Your task to perform on an android device: install app "Reddit" Image 0: 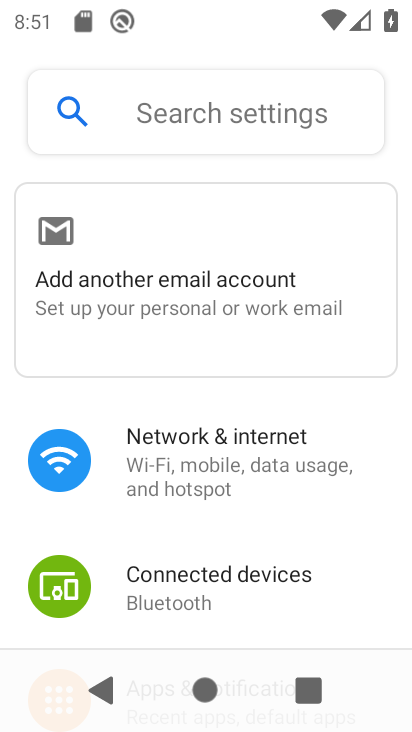
Step 0: press home button
Your task to perform on an android device: install app "Reddit" Image 1: 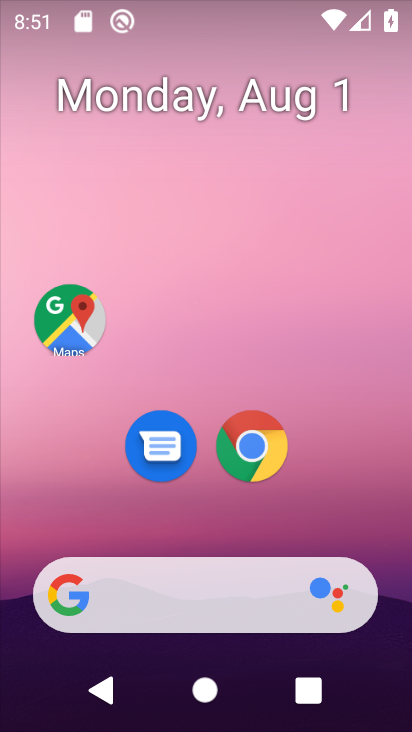
Step 1: drag from (202, 530) to (203, 92)
Your task to perform on an android device: install app "Reddit" Image 2: 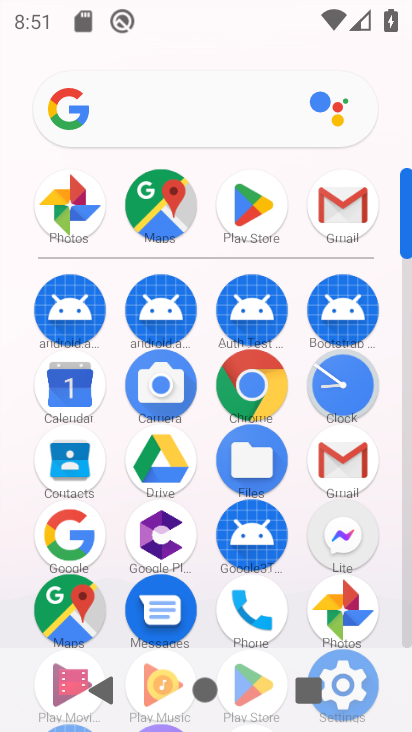
Step 2: click (247, 214)
Your task to perform on an android device: install app "Reddit" Image 3: 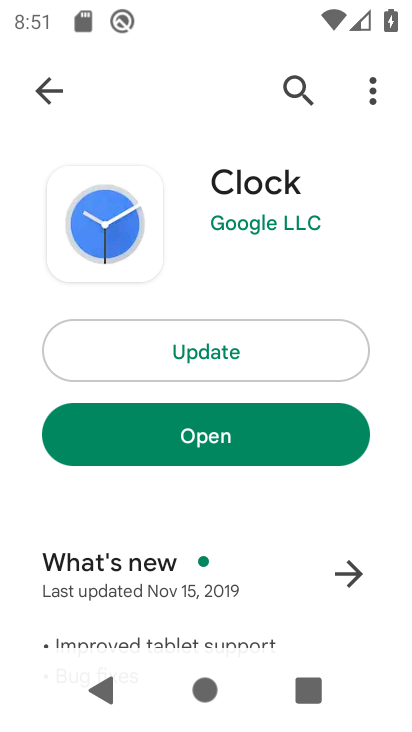
Step 3: click (294, 98)
Your task to perform on an android device: install app "Reddit" Image 4: 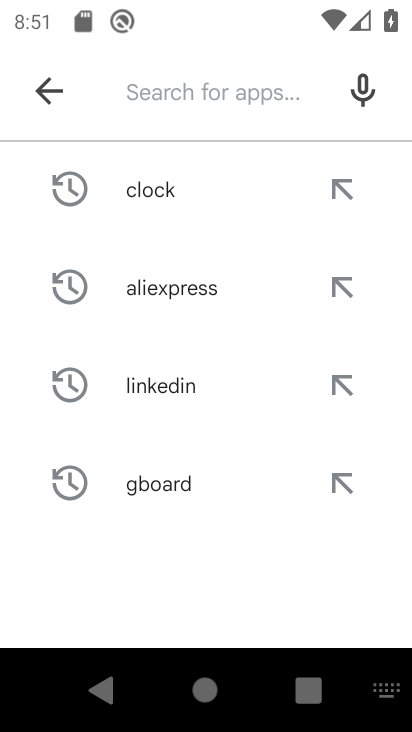
Step 4: click (257, 90)
Your task to perform on an android device: install app "Reddit" Image 5: 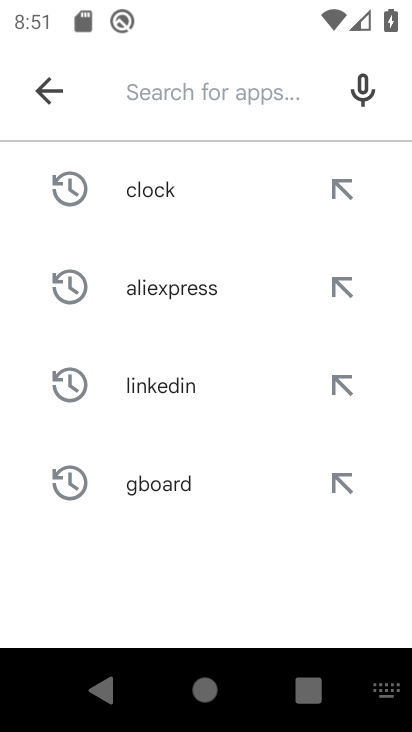
Step 5: type "Reddit"
Your task to perform on an android device: install app "Reddit" Image 6: 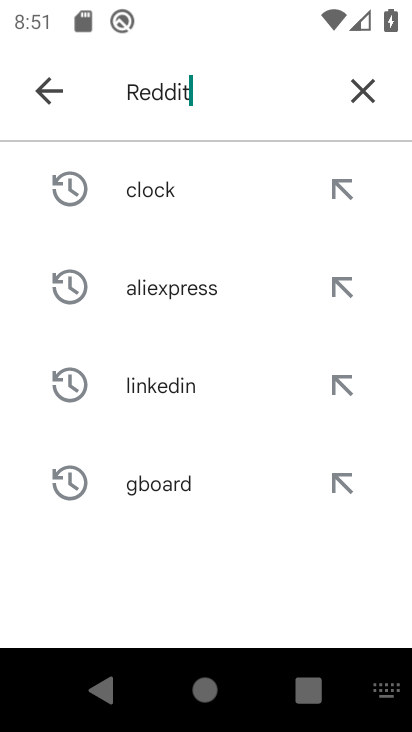
Step 6: type ""
Your task to perform on an android device: install app "Reddit" Image 7: 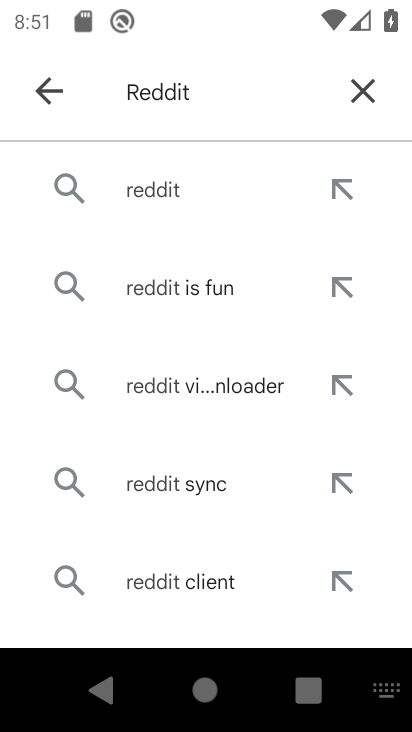
Step 7: click (214, 183)
Your task to perform on an android device: install app "Reddit" Image 8: 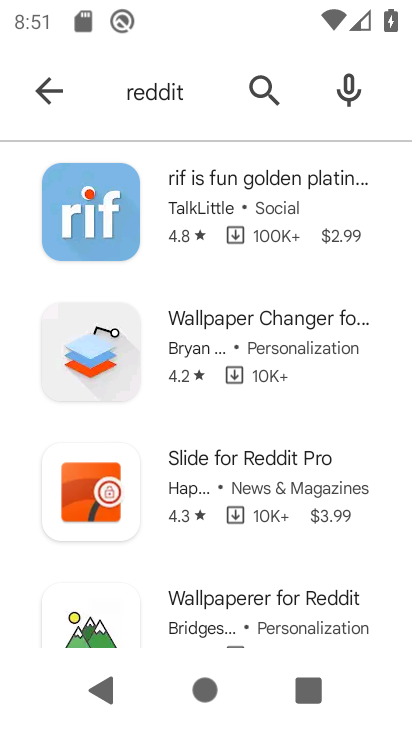
Step 8: task complete